Your task to perform on an android device: turn pop-ups off in chrome Image 0: 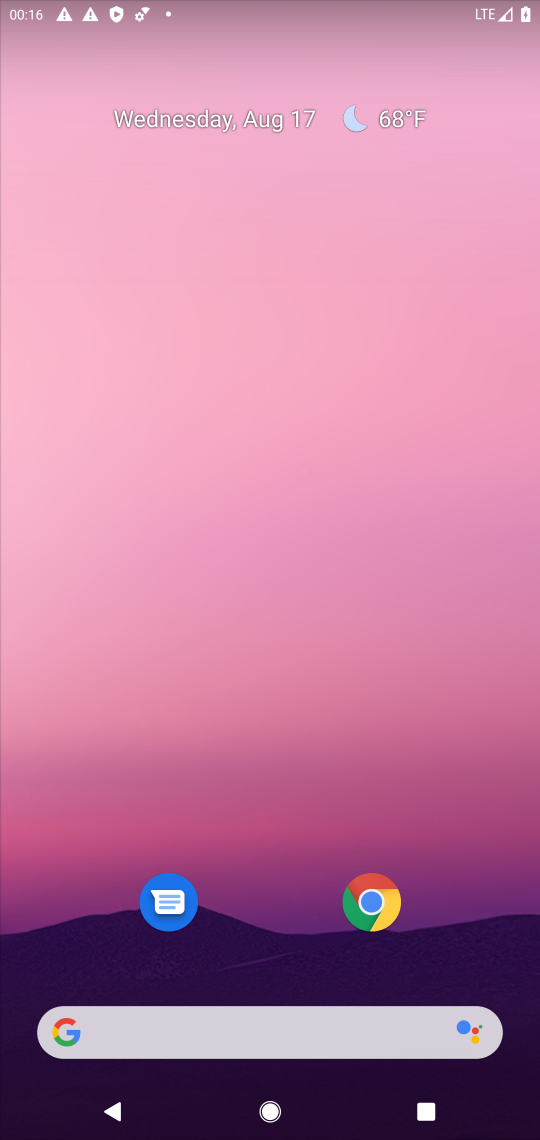
Step 0: click (354, 894)
Your task to perform on an android device: turn pop-ups off in chrome Image 1: 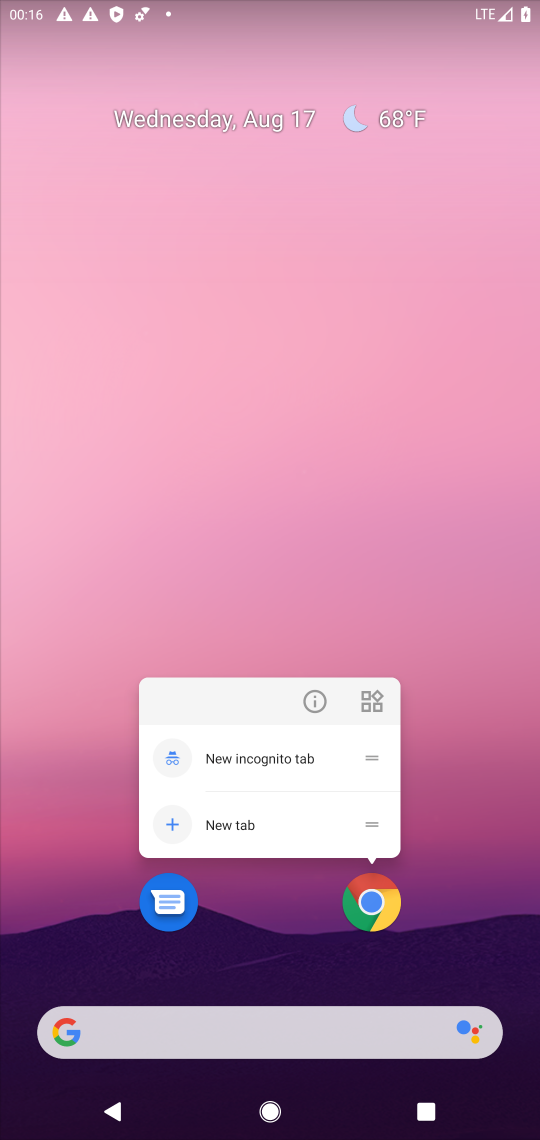
Step 1: click (355, 894)
Your task to perform on an android device: turn pop-ups off in chrome Image 2: 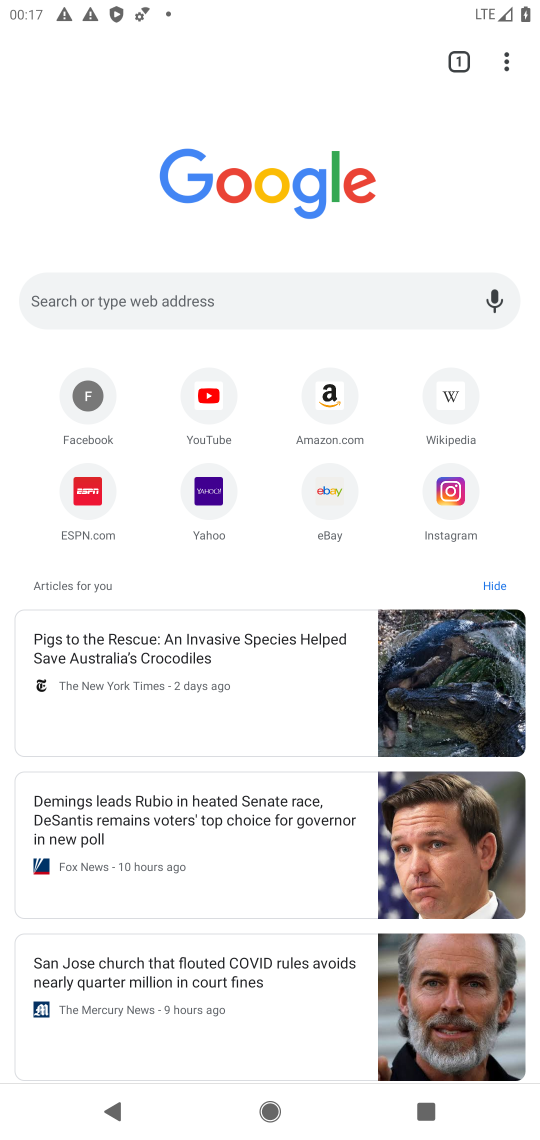
Step 2: click (501, 56)
Your task to perform on an android device: turn pop-ups off in chrome Image 3: 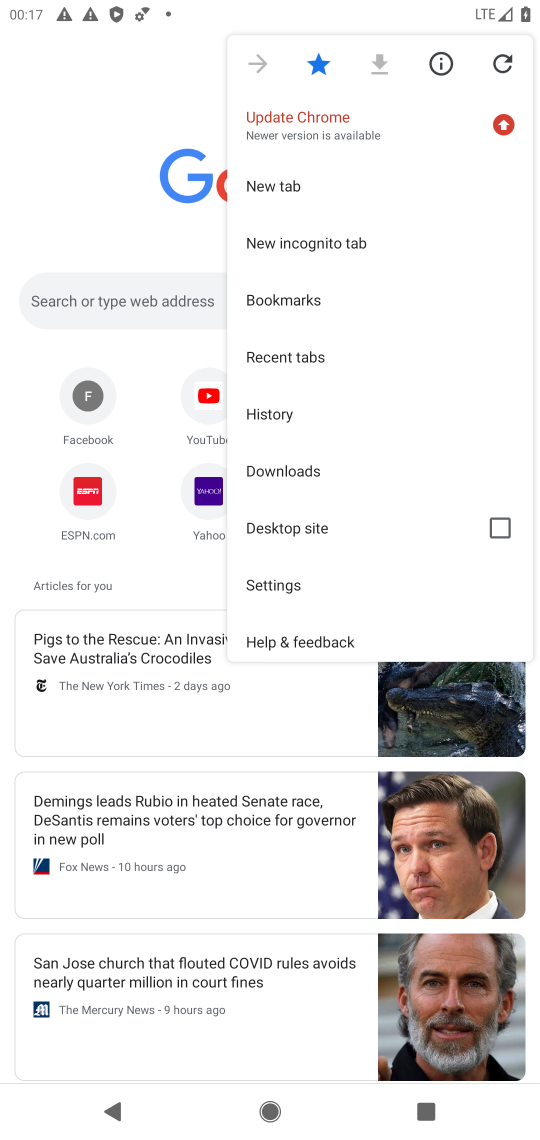
Step 3: click (291, 597)
Your task to perform on an android device: turn pop-ups off in chrome Image 4: 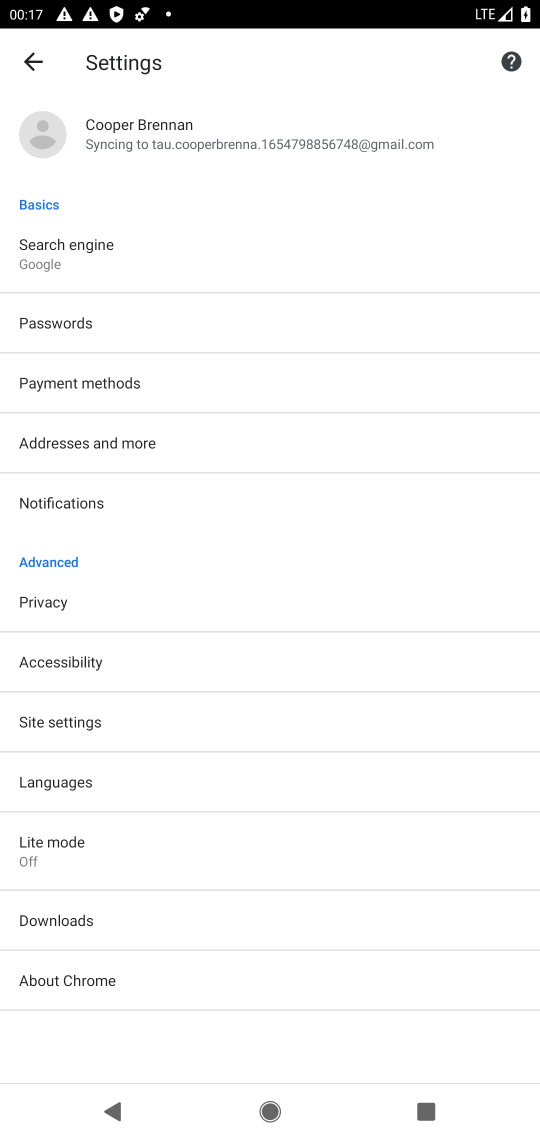
Step 4: click (87, 725)
Your task to perform on an android device: turn pop-ups off in chrome Image 5: 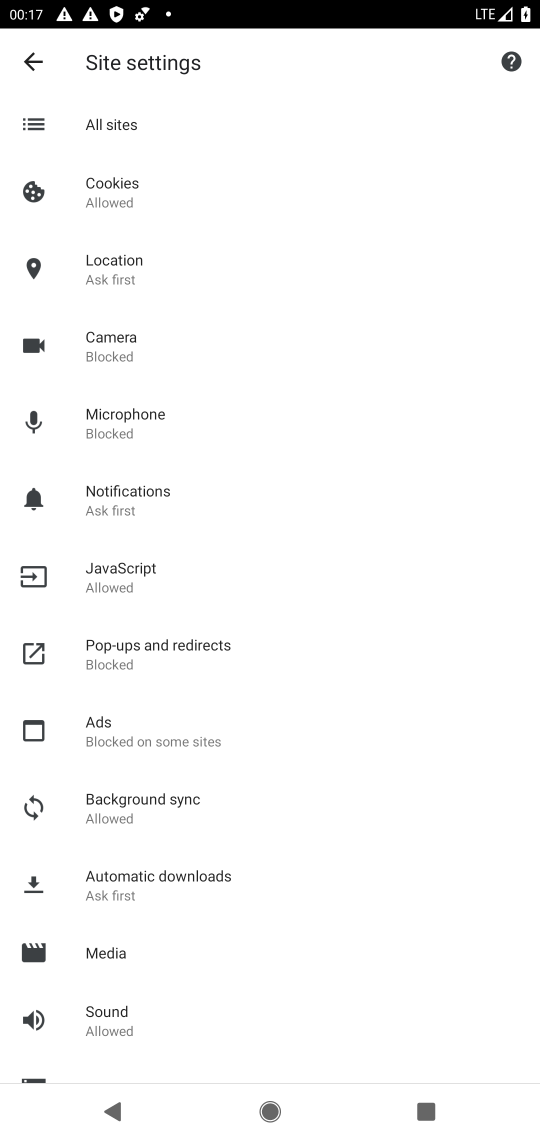
Step 5: click (146, 652)
Your task to perform on an android device: turn pop-ups off in chrome Image 6: 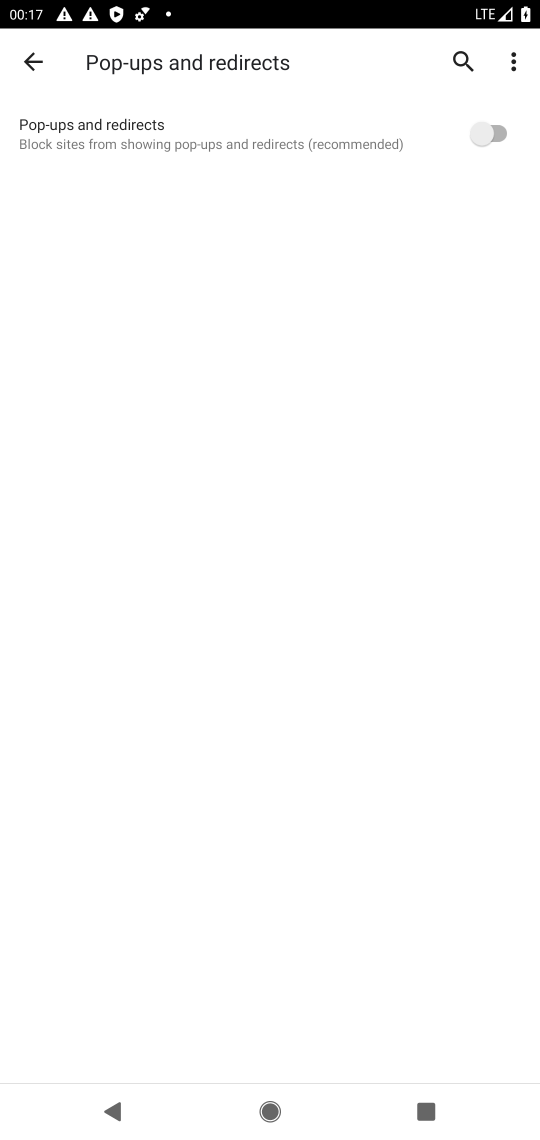
Step 6: task complete